Your task to perform on an android device: Open the phone app and click the voicemail tab. Image 0: 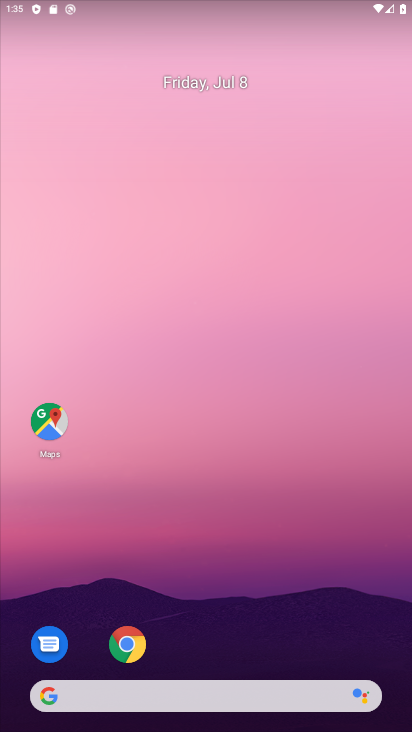
Step 0: drag from (210, 649) to (221, 154)
Your task to perform on an android device: Open the phone app and click the voicemail tab. Image 1: 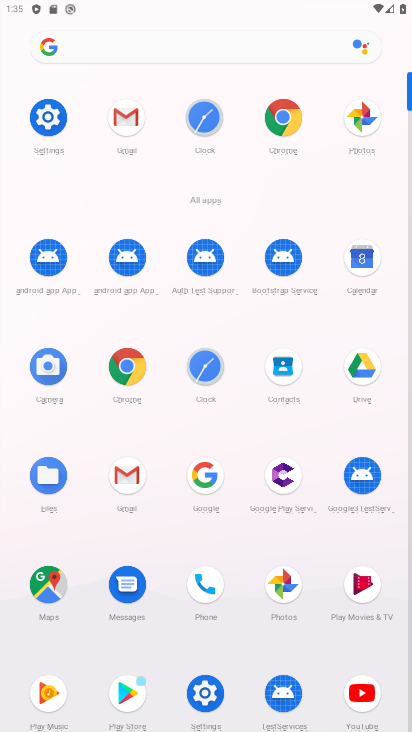
Step 1: click (201, 590)
Your task to perform on an android device: Open the phone app and click the voicemail tab. Image 2: 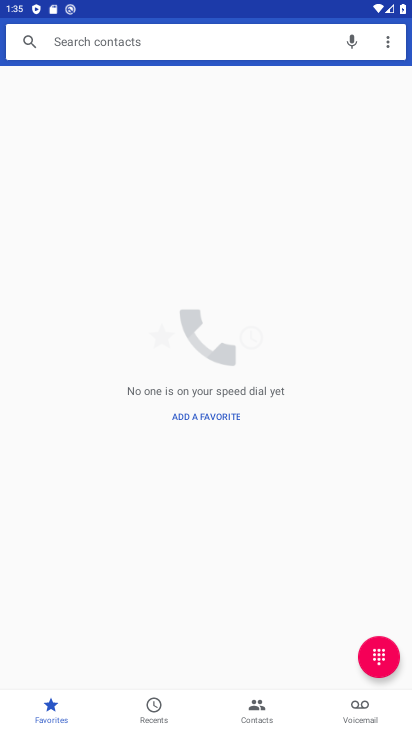
Step 2: click (353, 712)
Your task to perform on an android device: Open the phone app and click the voicemail tab. Image 3: 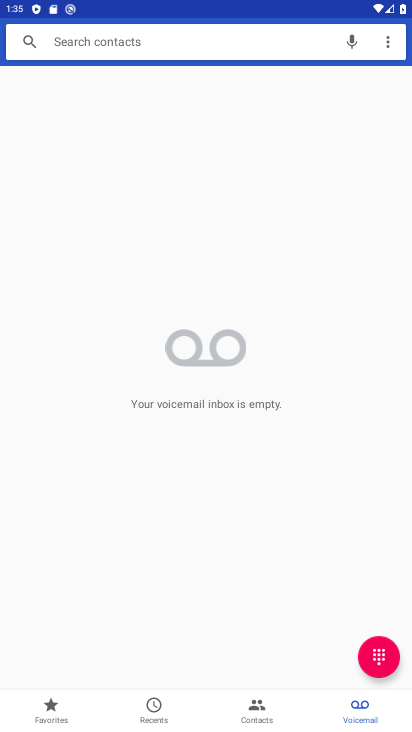
Step 3: task complete